Your task to perform on an android device: open app "ZOOM Cloud Meetings" Image 0: 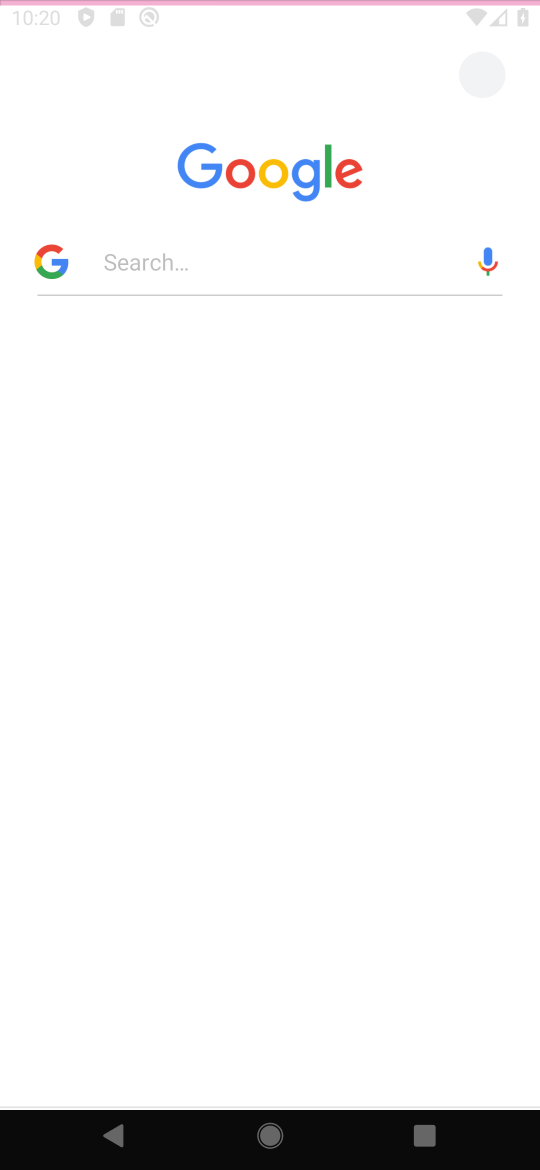
Step 0: press home button
Your task to perform on an android device: open app "ZOOM Cloud Meetings" Image 1: 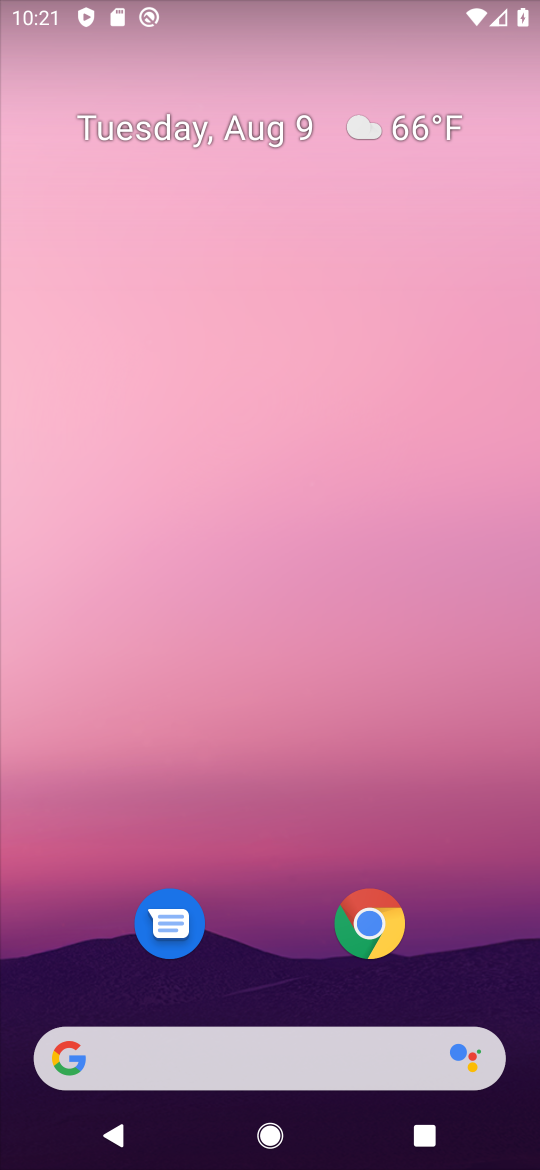
Step 1: press home button
Your task to perform on an android device: open app "ZOOM Cloud Meetings" Image 2: 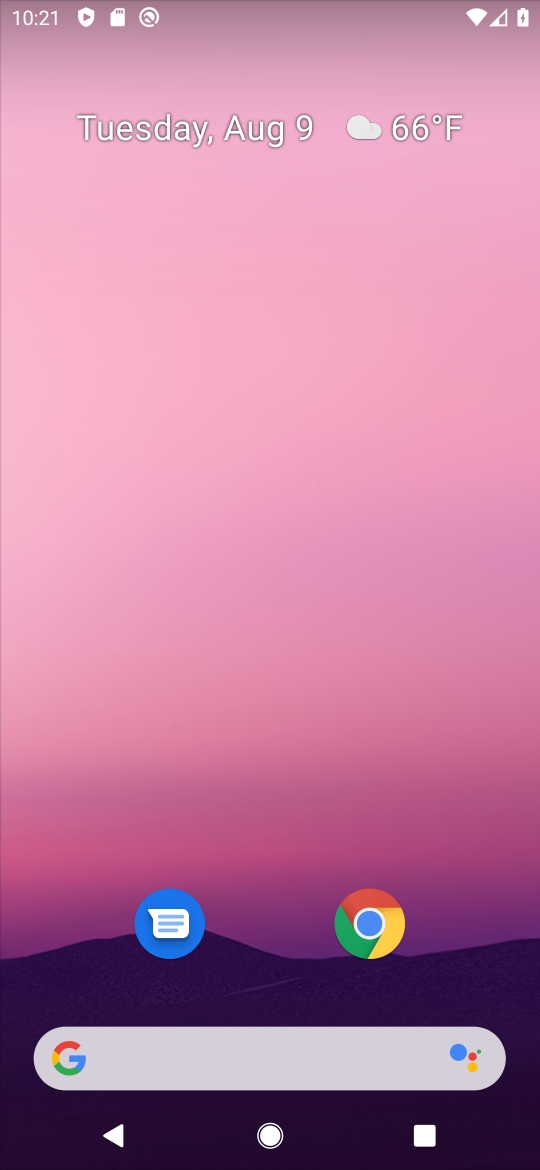
Step 2: drag from (264, 974) to (342, 7)
Your task to perform on an android device: open app "ZOOM Cloud Meetings" Image 3: 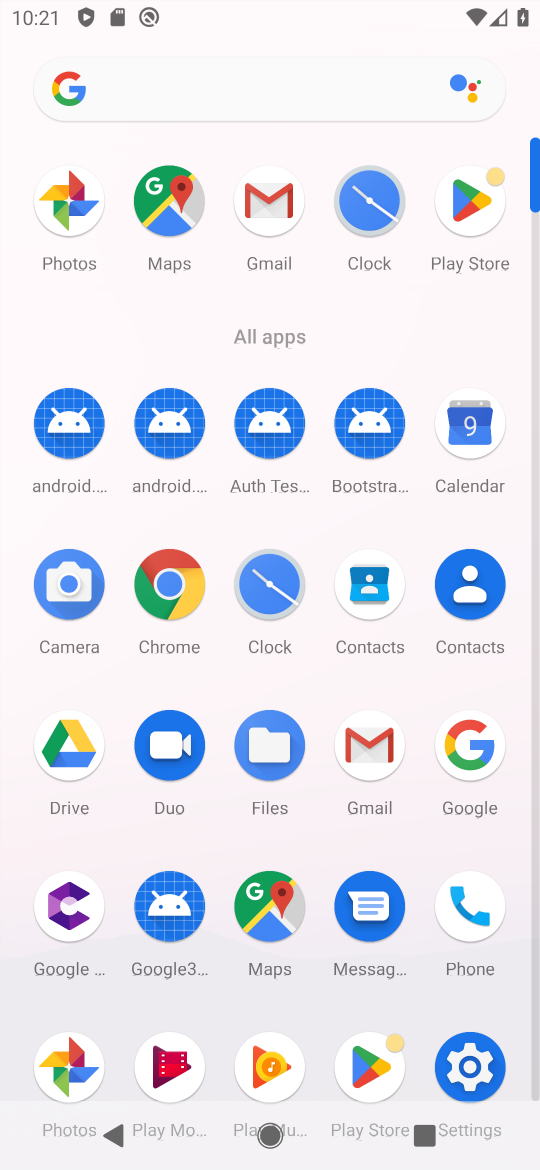
Step 3: click (467, 192)
Your task to perform on an android device: open app "ZOOM Cloud Meetings" Image 4: 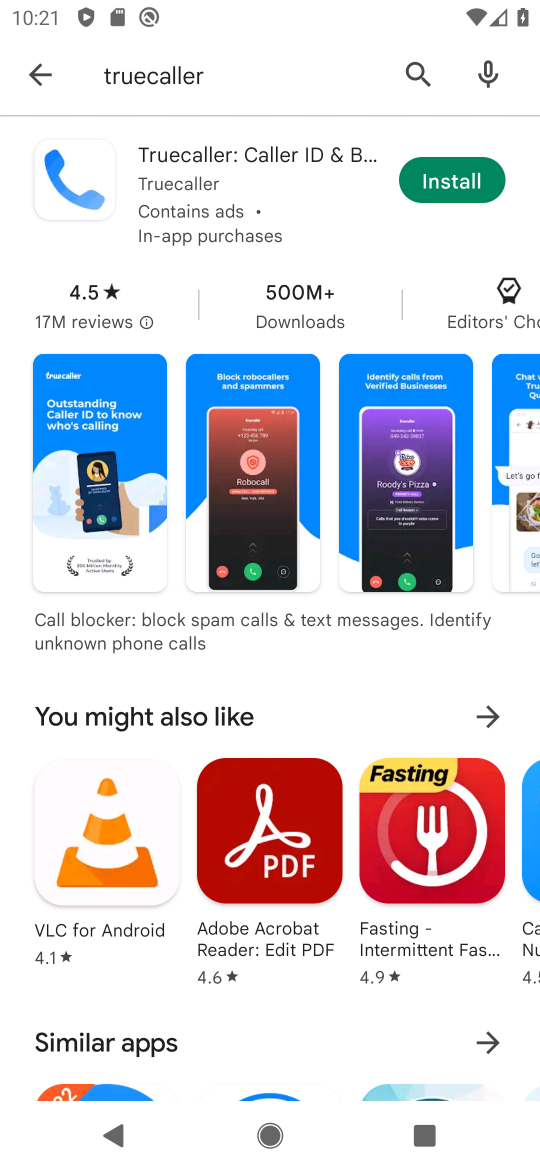
Step 4: click (405, 59)
Your task to perform on an android device: open app "ZOOM Cloud Meetings" Image 5: 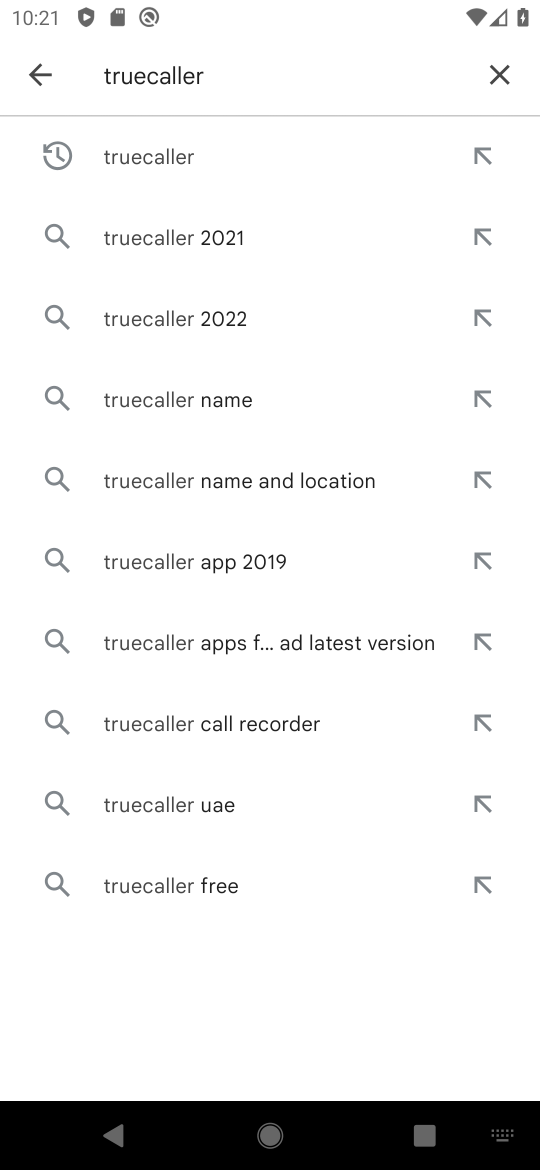
Step 5: click (496, 64)
Your task to perform on an android device: open app "ZOOM Cloud Meetings" Image 6: 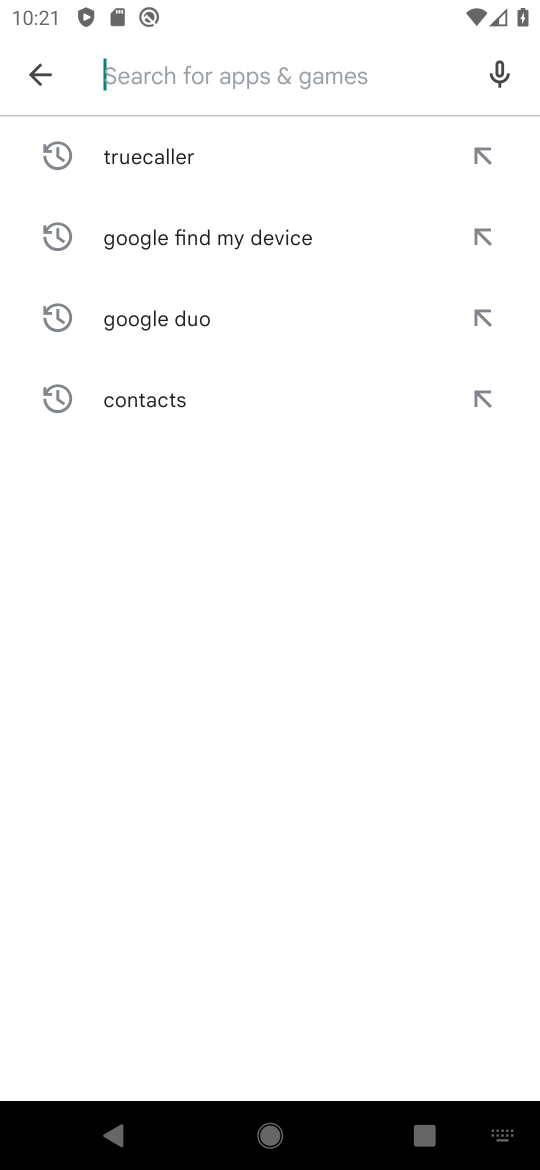
Step 6: type "ZOOM Cloud Meetings"
Your task to perform on an android device: open app "ZOOM Cloud Meetings" Image 7: 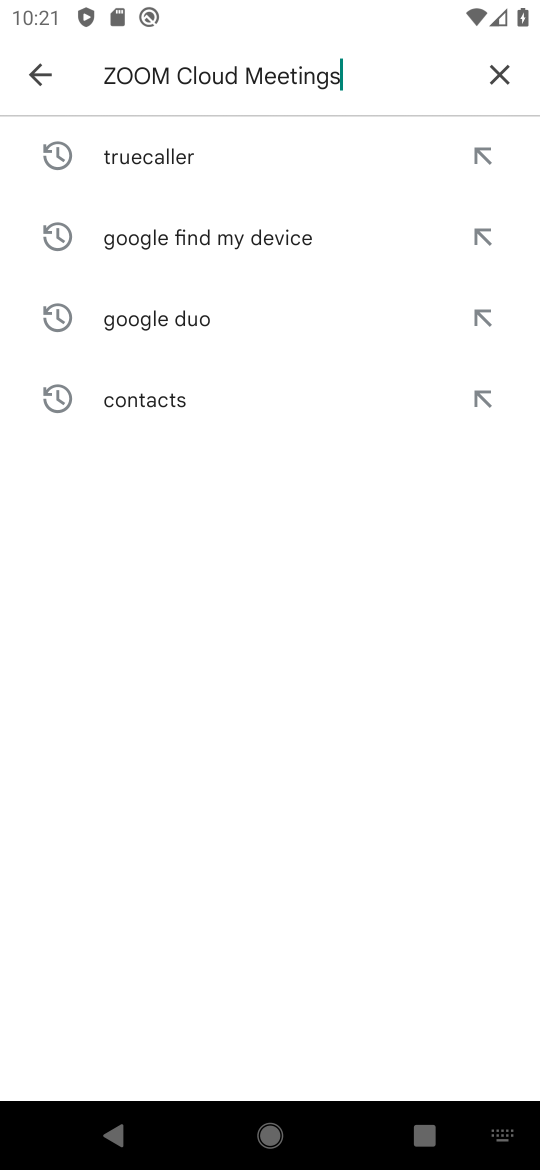
Step 7: type ""
Your task to perform on an android device: open app "ZOOM Cloud Meetings" Image 8: 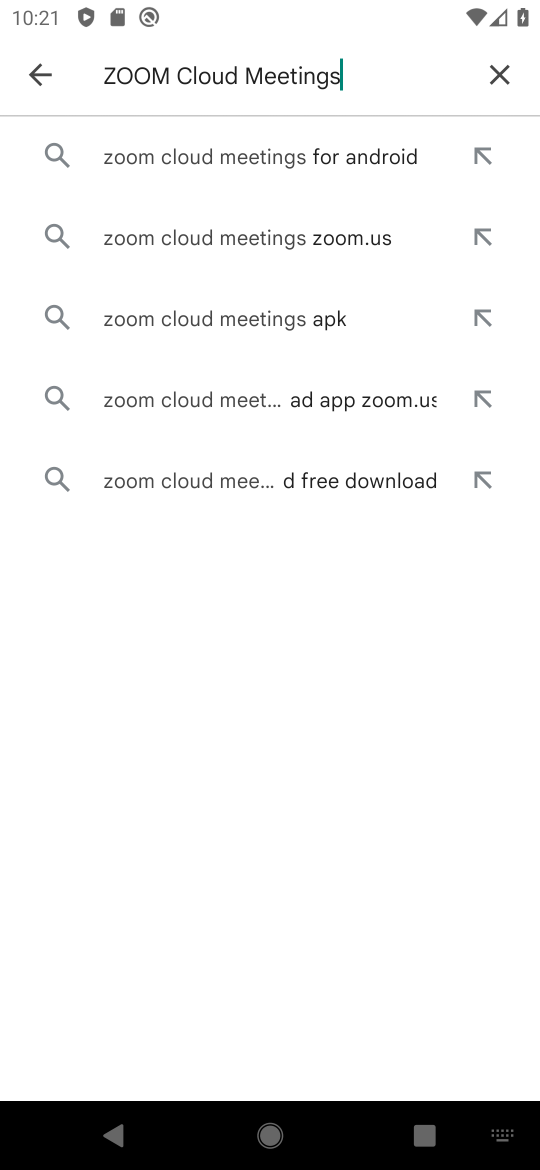
Step 8: click (283, 167)
Your task to perform on an android device: open app "ZOOM Cloud Meetings" Image 9: 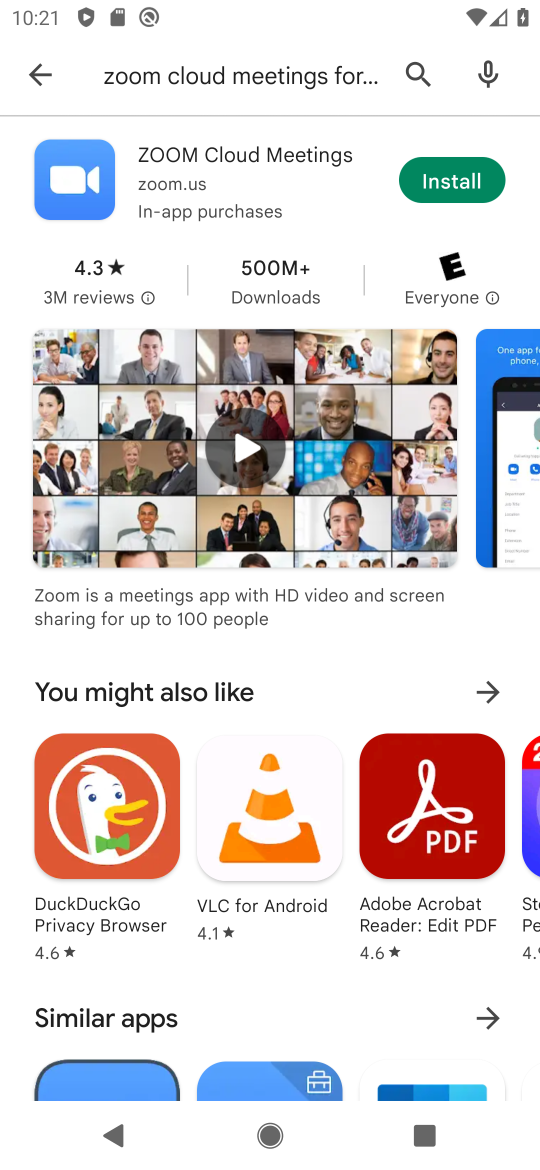
Step 9: task complete